Your task to perform on an android device: Go to Amazon Image 0: 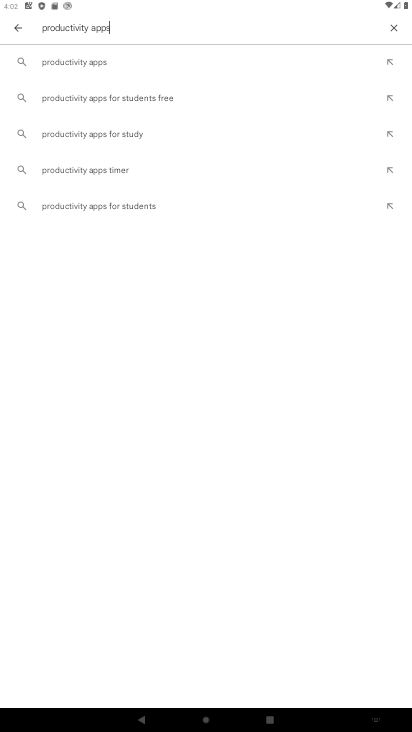
Step 0: press home button
Your task to perform on an android device: Go to Amazon Image 1: 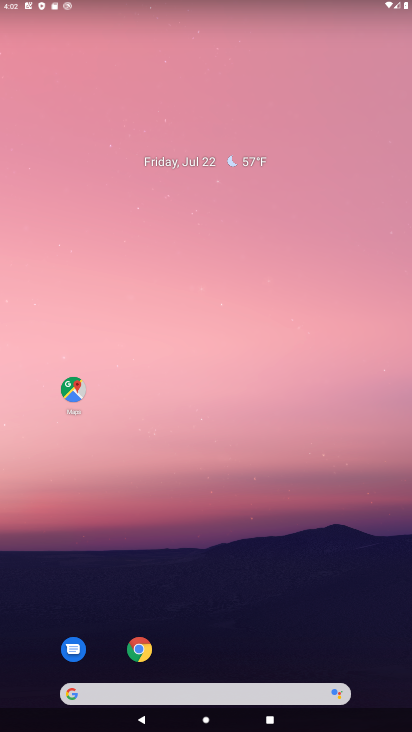
Step 1: click (143, 643)
Your task to perform on an android device: Go to Amazon Image 2: 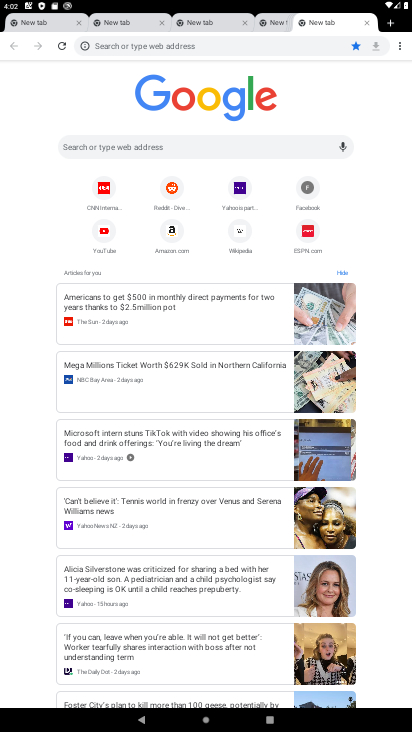
Step 2: click (146, 43)
Your task to perform on an android device: Go to Amazon Image 3: 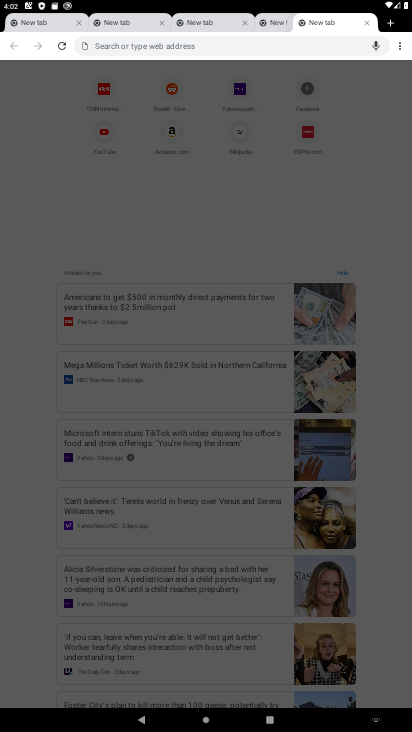
Step 3: type " Amazon"
Your task to perform on an android device: Go to Amazon Image 4: 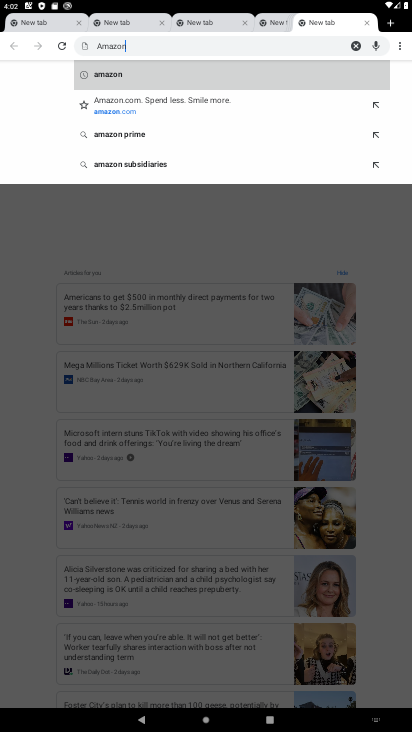
Step 4: type ""
Your task to perform on an android device: Go to Amazon Image 5: 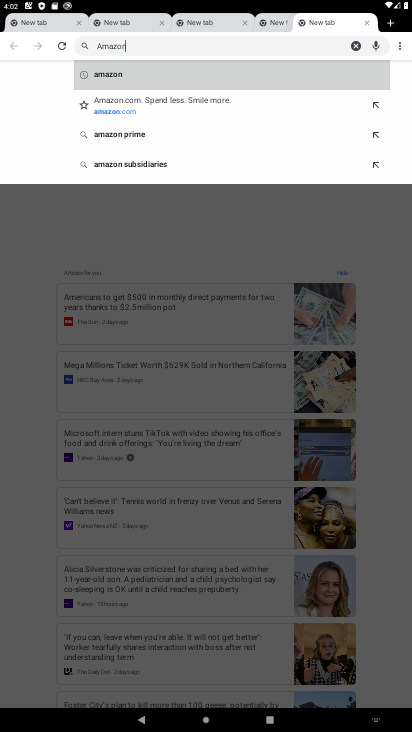
Step 5: click (117, 73)
Your task to perform on an android device: Go to Amazon Image 6: 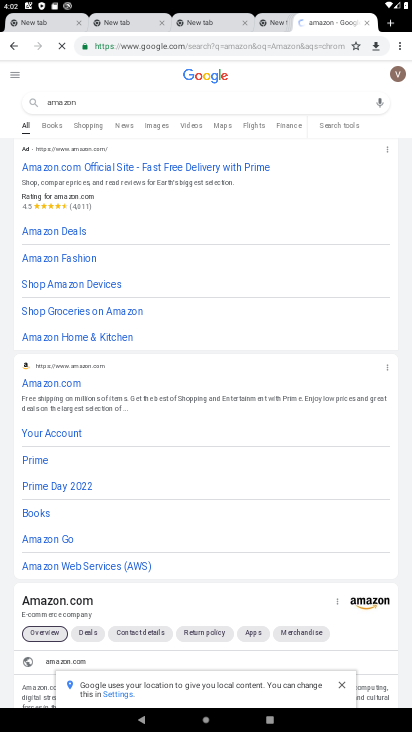
Step 6: task complete